Your task to perform on an android device: open wifi settings Image 0: 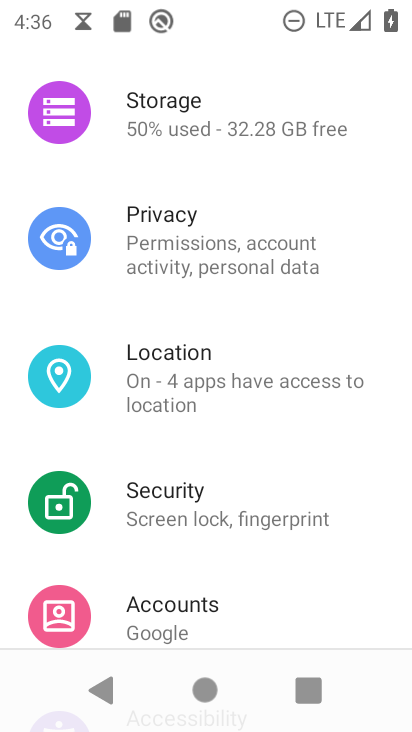
Step 0: drag from (268, 182) to (275, 593)
Your task to perform on an android device: open wifi settings Image 1: 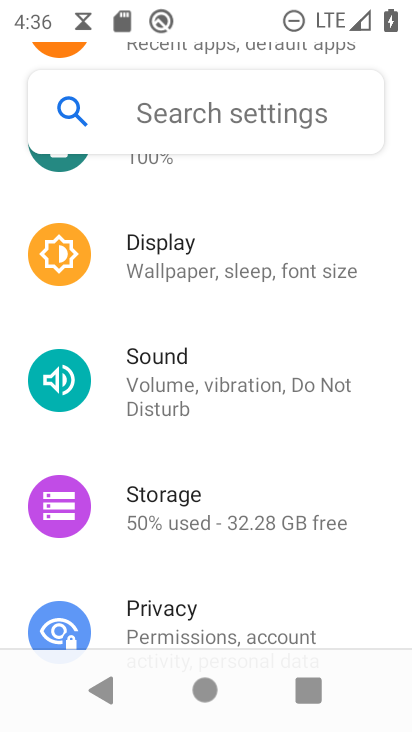
Step 1: drag from (251, 250) to (235, 659)
Your task to perform on an android device: open wifi settings Image 2: 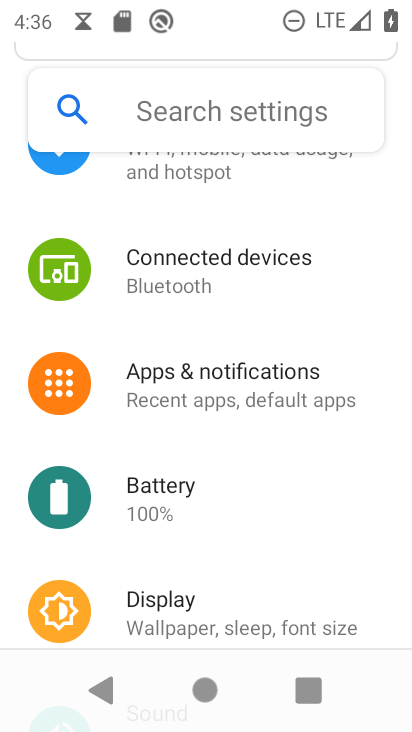
Step 2: drag from (252, 258) to (257, 596)
Your task to perform on an android device: open wifi settings Image 3: 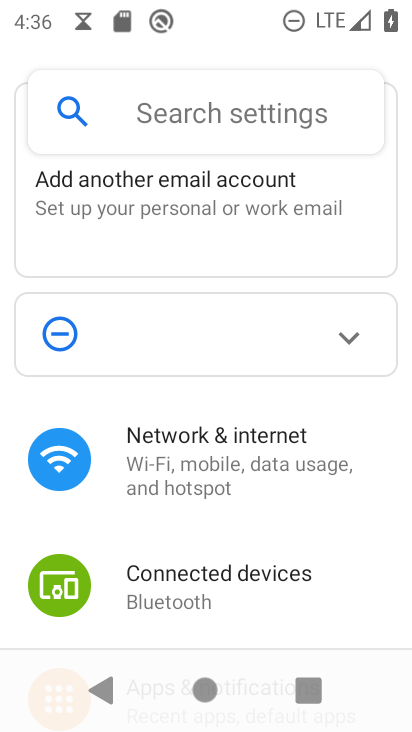
Step 3: click (203, 453)
Your task to perform on an android device: open wifi settings Image 4: 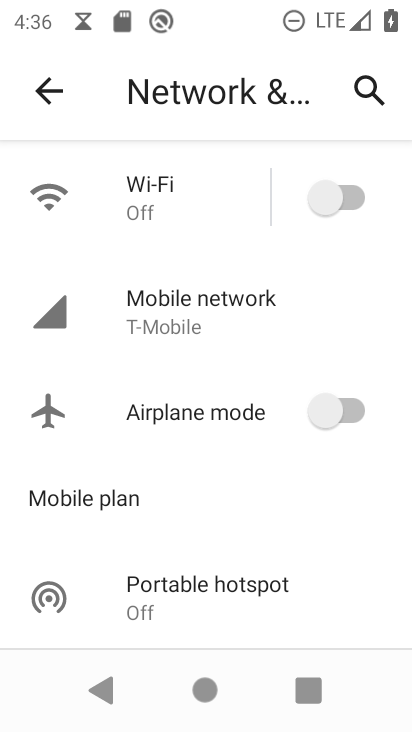
Step 4: click (171, 185)
Your task to perform on an android device: open wifi settings Image 5: 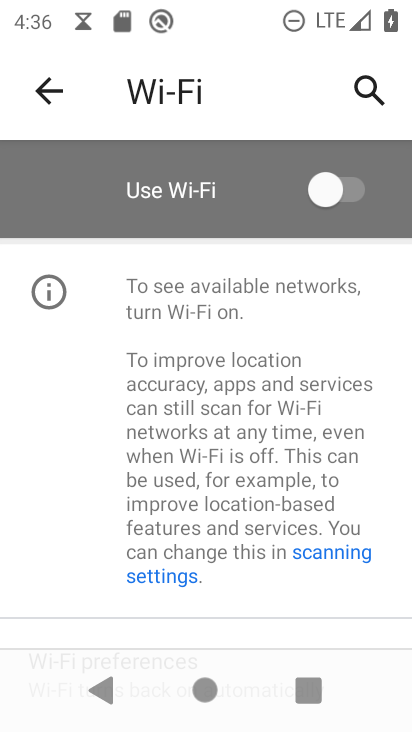
Step 5: task complete